Your task to perform on an android device: toggle show notifications on the lock screen Image 0: 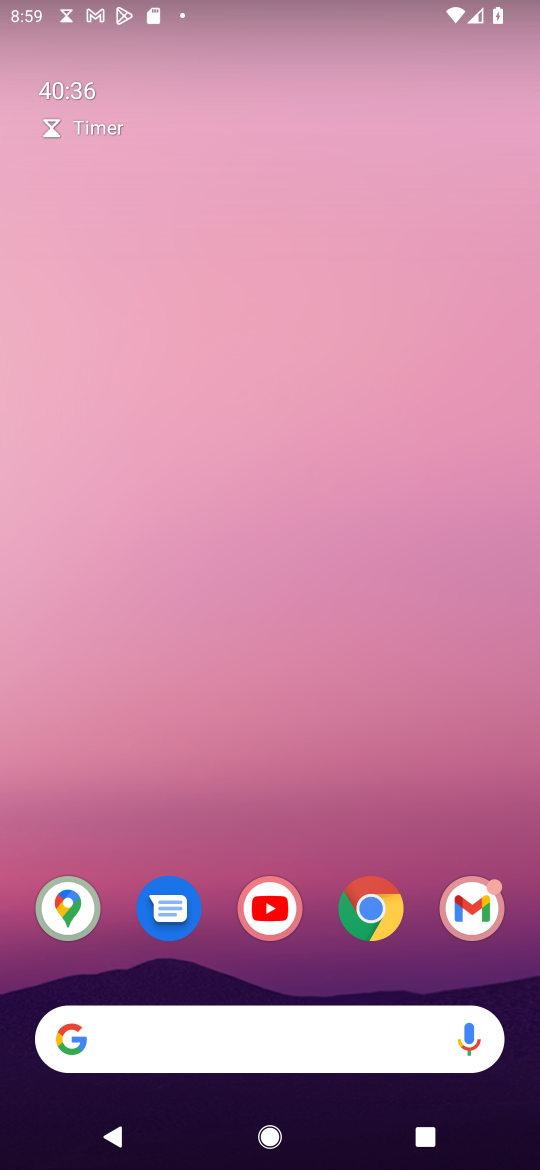
Step 0: drag from (302, 1060) to (375, 349)
Your task to perform on an android device: toggle show notifications on the lock screen Image 1: 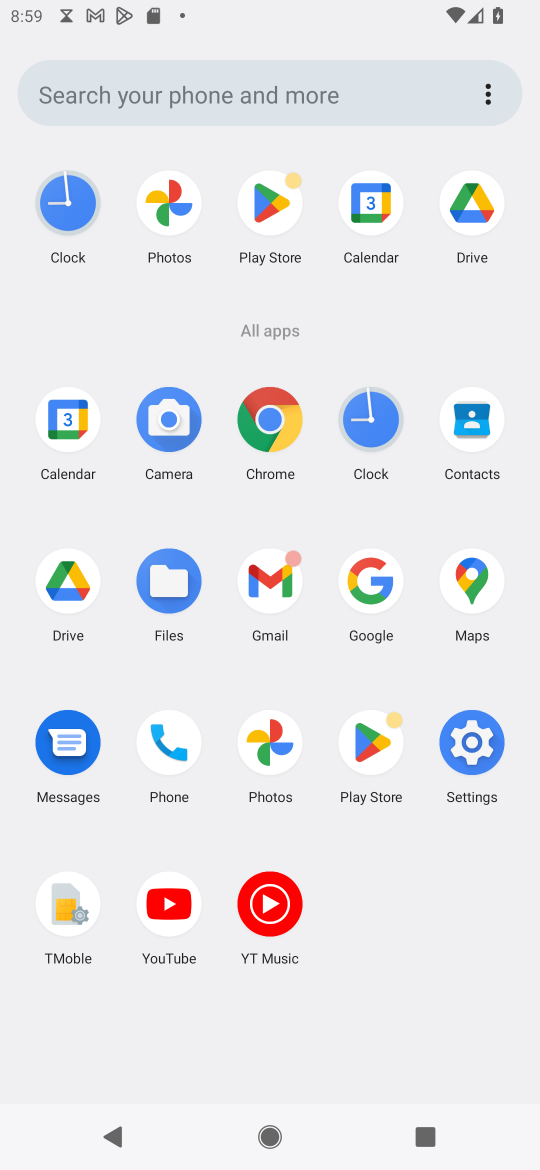
Step 1: click (466, 737)
Your task to perform on an android device: toggle show notifications on the lock screen Image 2: 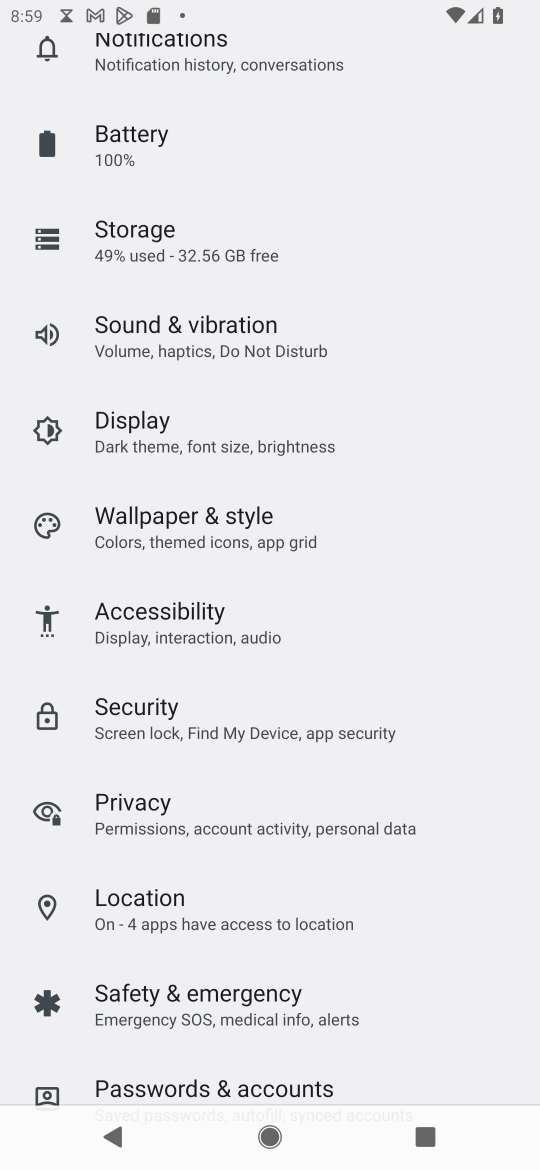
Step 2: click (141, 46)
Your task to perform on an android device: toggle show notifications on the lock screen Image 3: 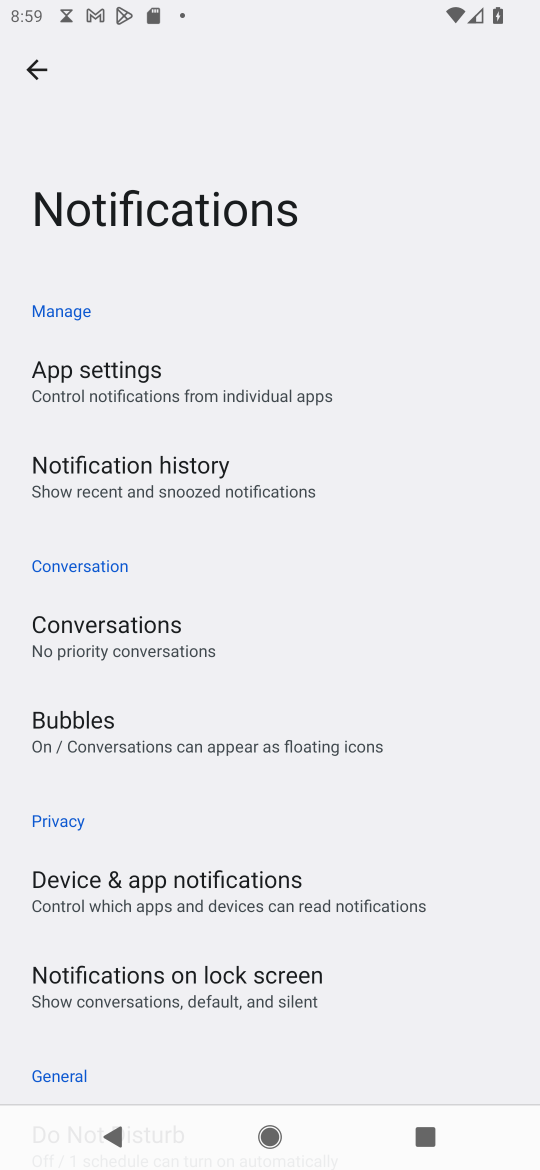
Step 3: click (147, 950)
Your task to perform on an android device: toggle show notifications on the lock screen Image 4: 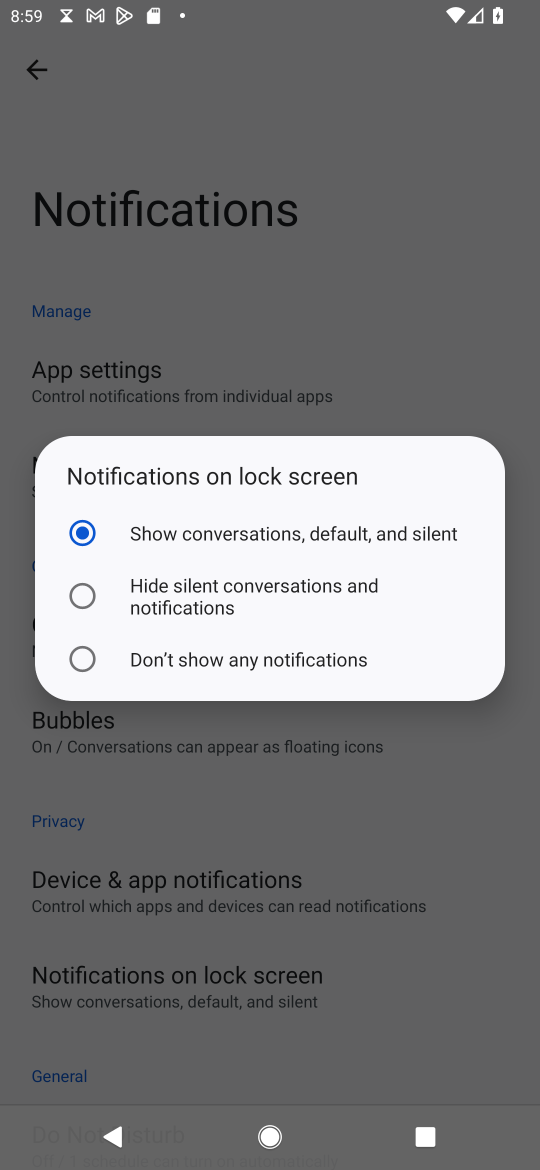
Step 4: click (180, 672)
Your task to perform on an android device: toggle show notifications on the lock screen Image 5: 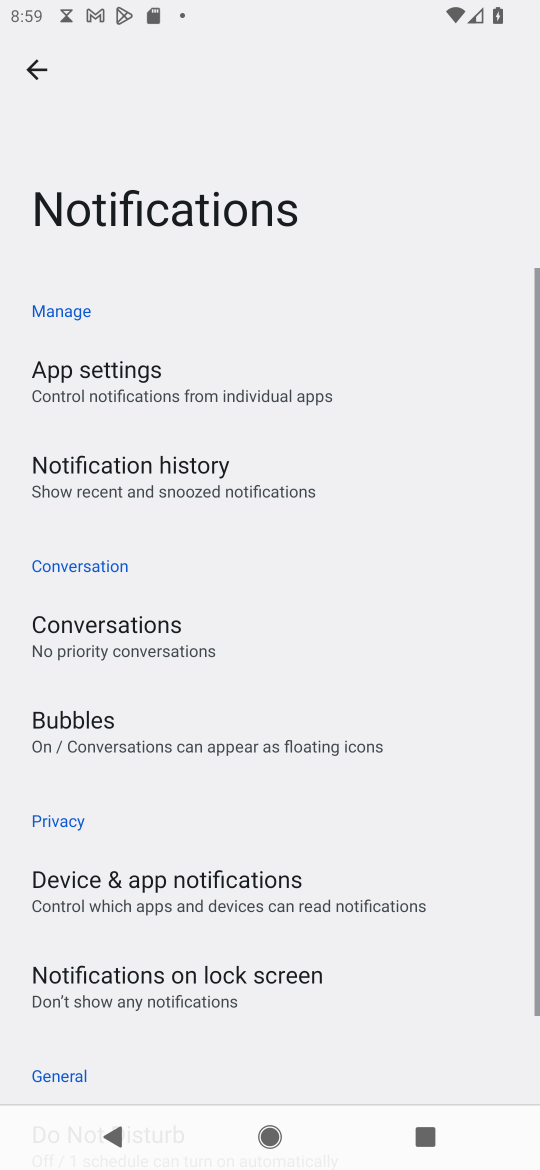
Step 5: task complete